Your task to perform on an android device: Open calendar and show me the third week of next month Image 0: 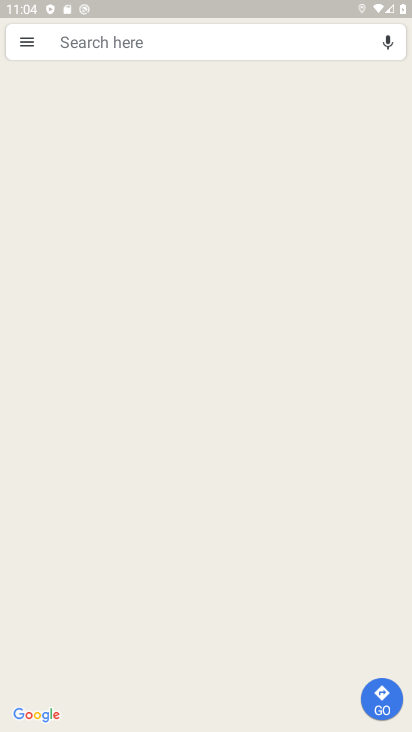
Step 0: press home button
Your task to perform on an android device: Open calendar and show me the third week of next month Image 1: 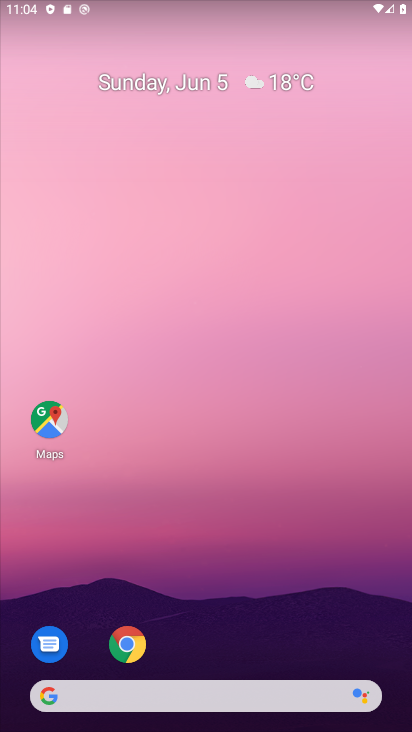
Step 1: drag from (254, 688) to (242, 311)
Your task to perform on an android device: Open calendar and show me the third week of next month Image 2: 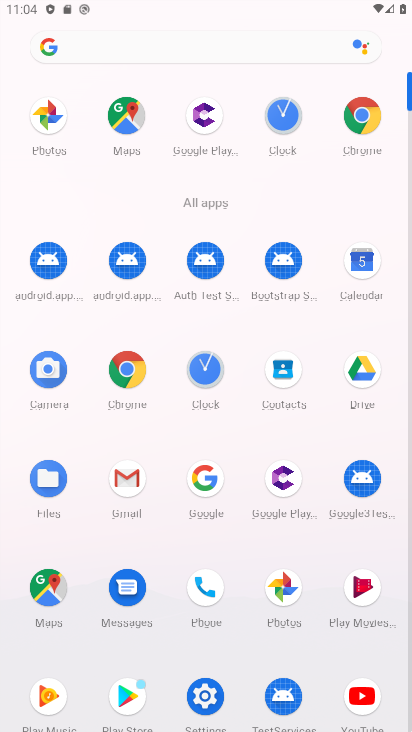
Step 2: click (356, 134)
Your task to perform on an android device: Open calendar and show me the third week of next month Image 3: 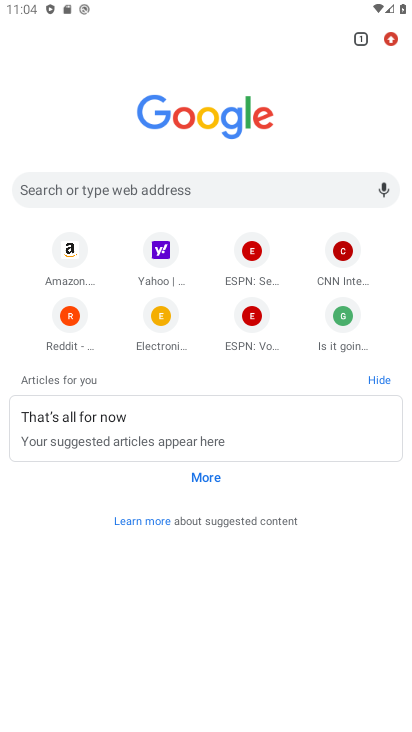
Step 3: click (388, 43)
Your task to perform on an android device: Open calendar and show me the third week of next month Image 4: 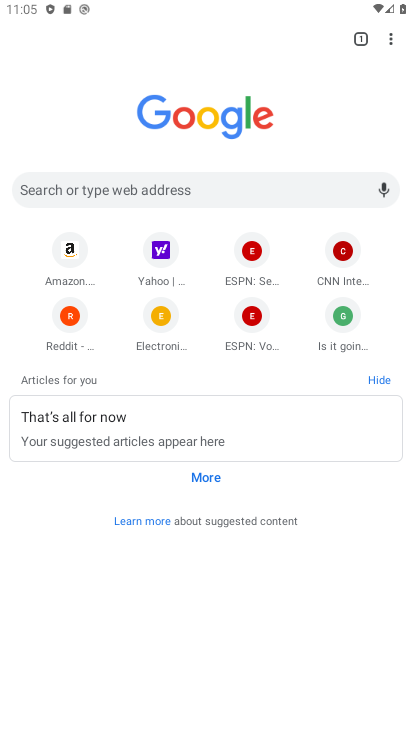
Step 4: press home button
Your task to perform on an android device: Open calendar and show me the third week of next month Image 5: 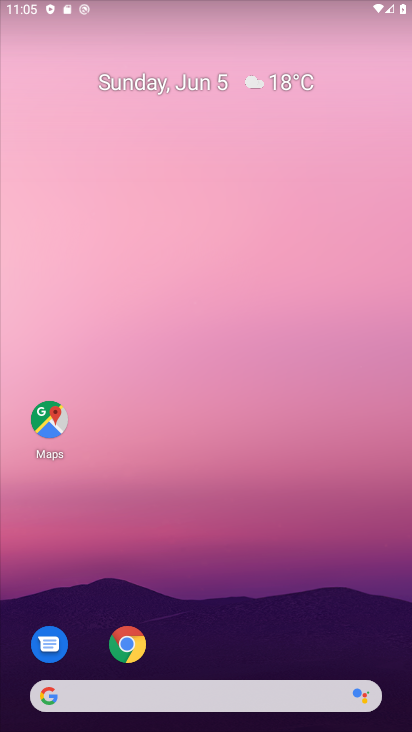
Step 5: drag from (253, 713) to (234, 168)
Your task to perform on an android device: Open calendar and show me the third week of next month Image 6: 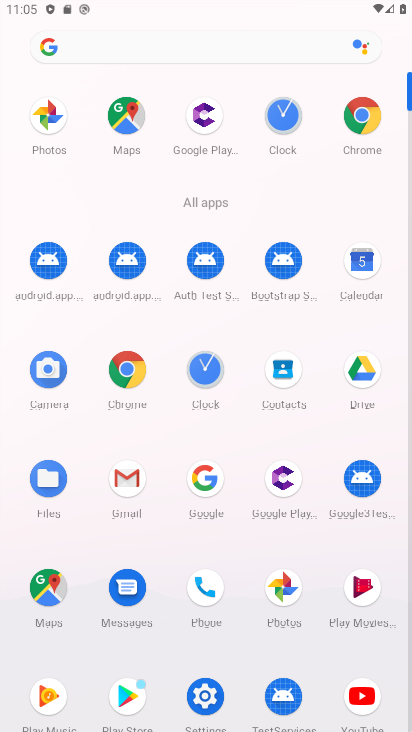
Step 6: click (348, 267)
Your task to perform on an android device: Open calendar and show me the third week of next month Image 7: 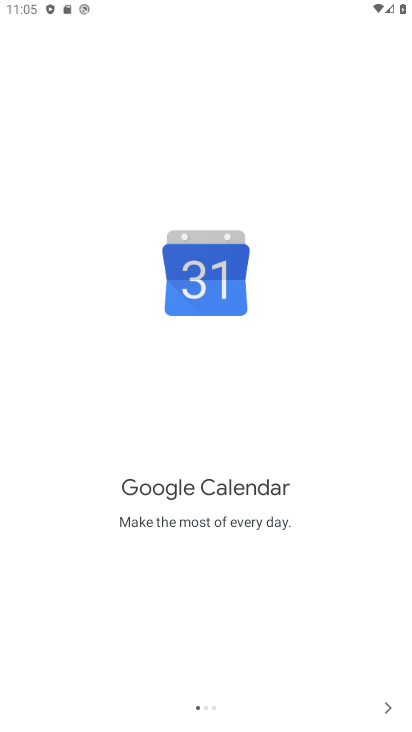
Step 7: click (398, 709)
Your task to perform on an android device: Open calendar and show me the third week of next month Image 8: 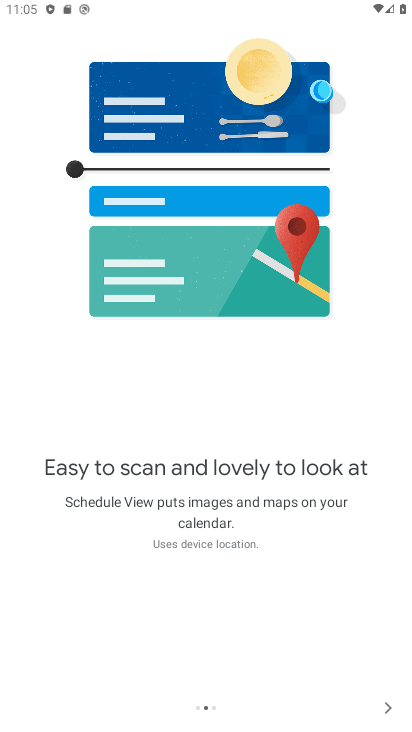
Step 8: click (393, 711)
Your task to perform on an android device: Open calendar and show me the third week of next month Image 9: 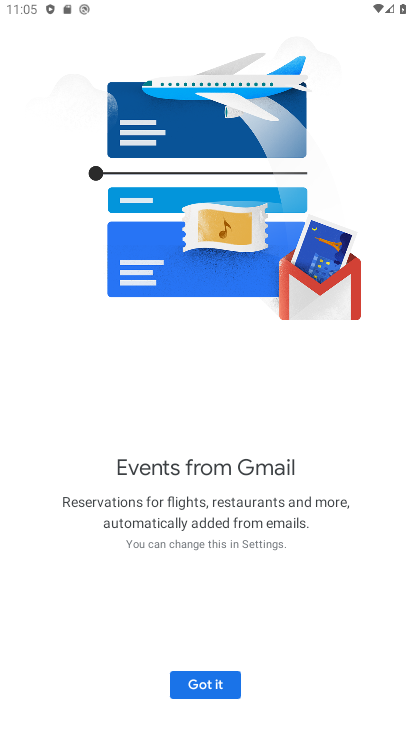
Step 9: click (221, 685)
Your task to perform on an android device: Open calendar and show me the third week of next month Image 10: 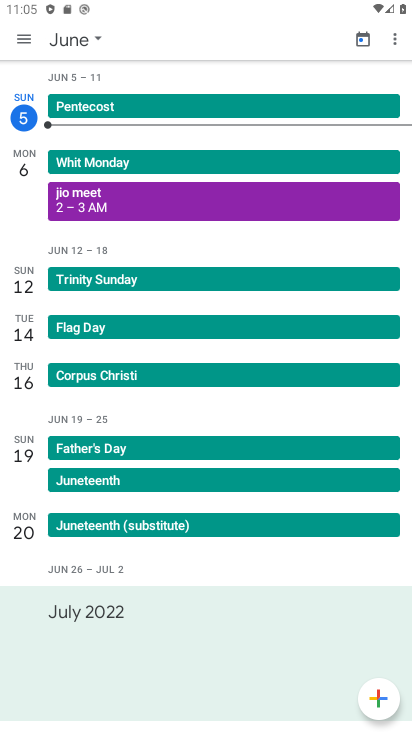
Step 10: click (12, 44)
Your task to perform on an android device: Open calendar and show me the third week of next month Image 11: 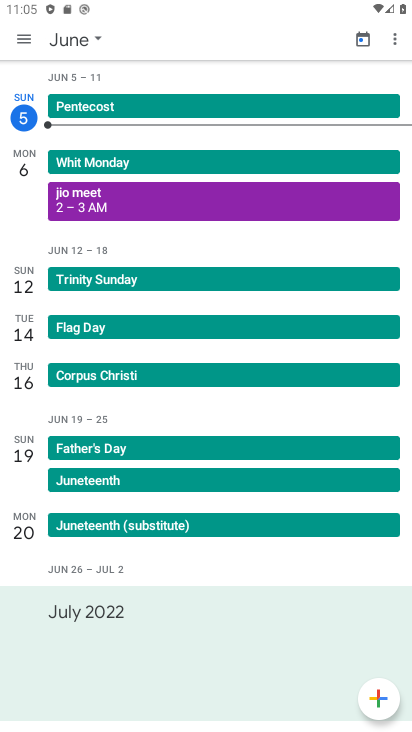
Step 11: click (23, 49)
Your task to perform on an android device: Open calendar and show me the third week of next month Image 12: 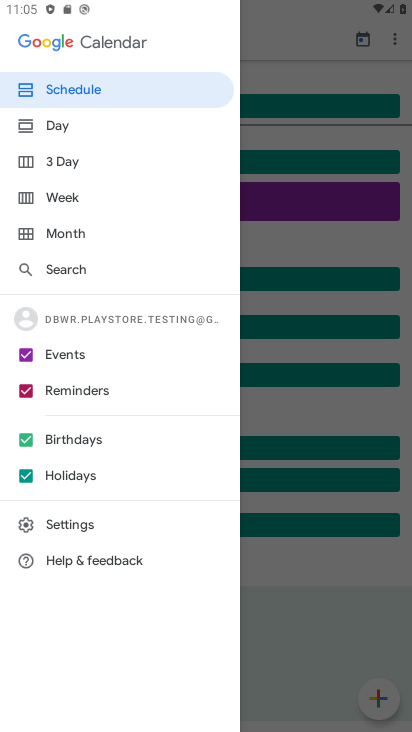
Step 12: click (55, 232)
Your task to perform on an android device: Open calendar and show me the third week of next month Image 13: 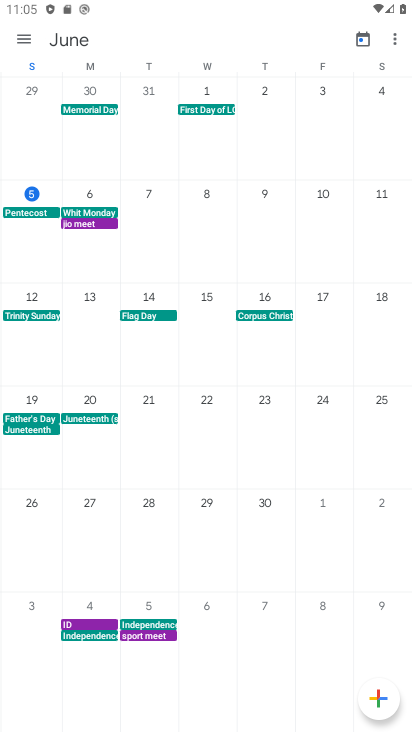
Step 13: drag from (367, 416) to (13, 411)
Your task to perform on an android device: Open calendar and show me the third week of next month Image 14: 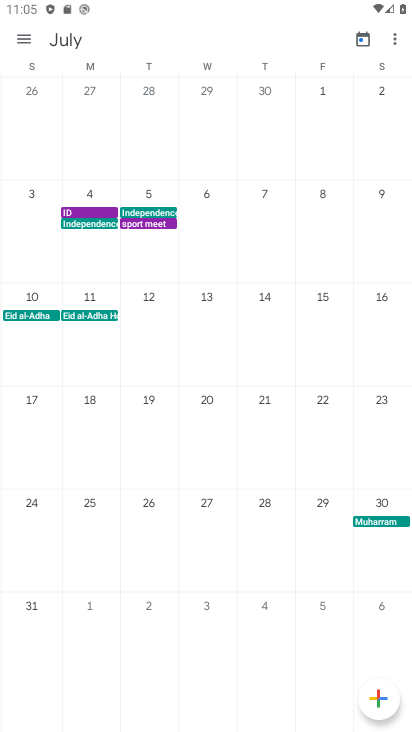
Step 14: click (88, 368)
Your task to perform on an android device: Open calendar and show me the third week of next month Image 15: 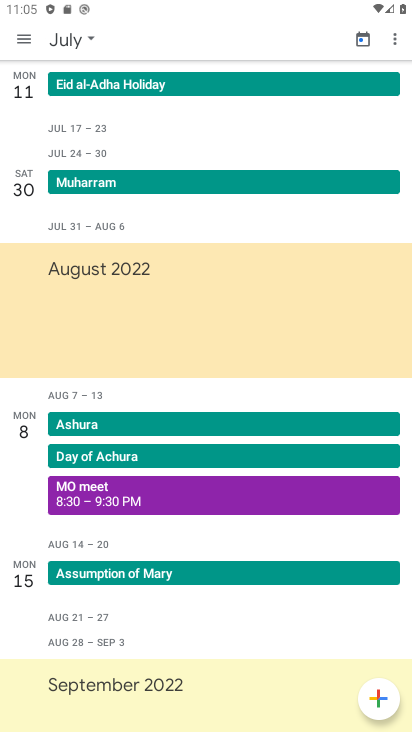
Step 15: task complete